Your task to perform on an android device: turn on wifi Image 0: 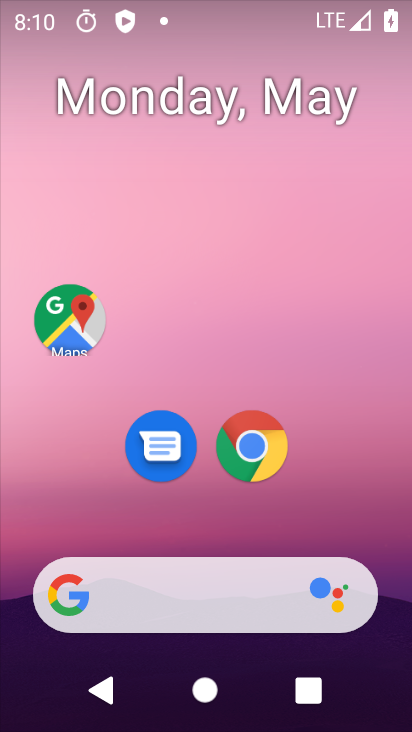
Step 0: drag from (335, 529) to (288, 15)
Your task to perform on an android device: turn on wifi Image 1: 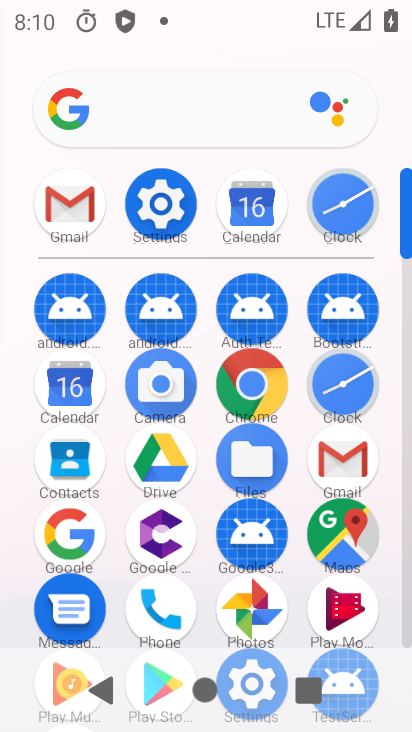
Step 1: click (157, 210)
Your task to perform on an android device: turn on wifi Image 2: 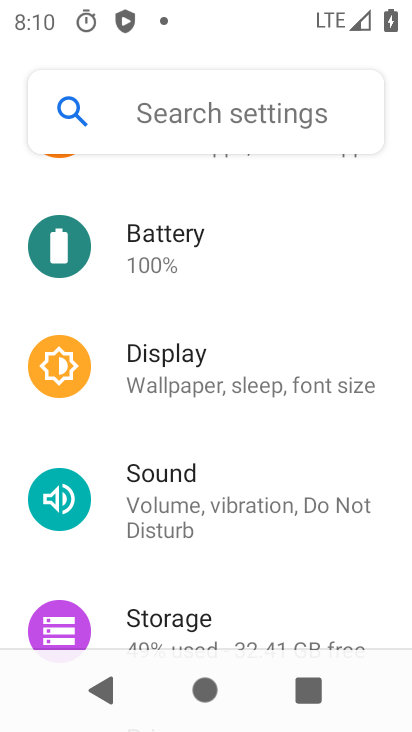
Step 2: drag from (328, 252) to (280, 634)
Your task to perform on an android device: turn on wifi Image 3: 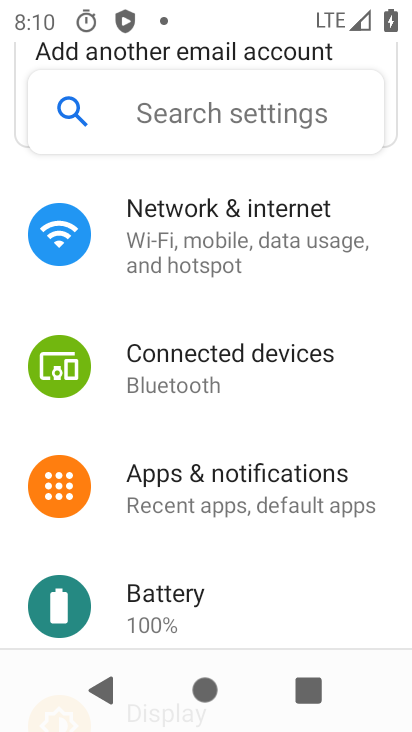
Step 3: click (255, 249)
Your task to perform on an android device: turn on wifi Image 4: 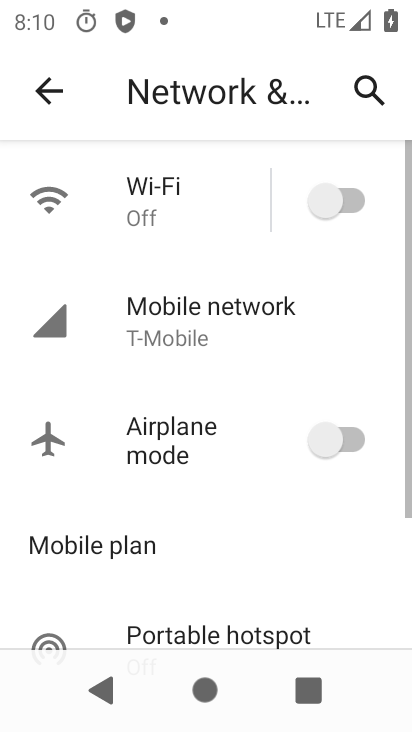
Step 4: click (314, 204)
Your task to perform on an android device: turn on wifi Image 5: 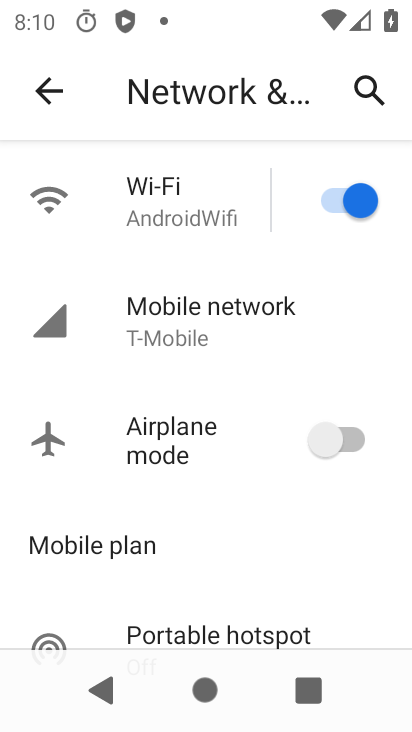
Step 5: task complete